Your task to perform on an android device: change the clock display to analog Image 0: 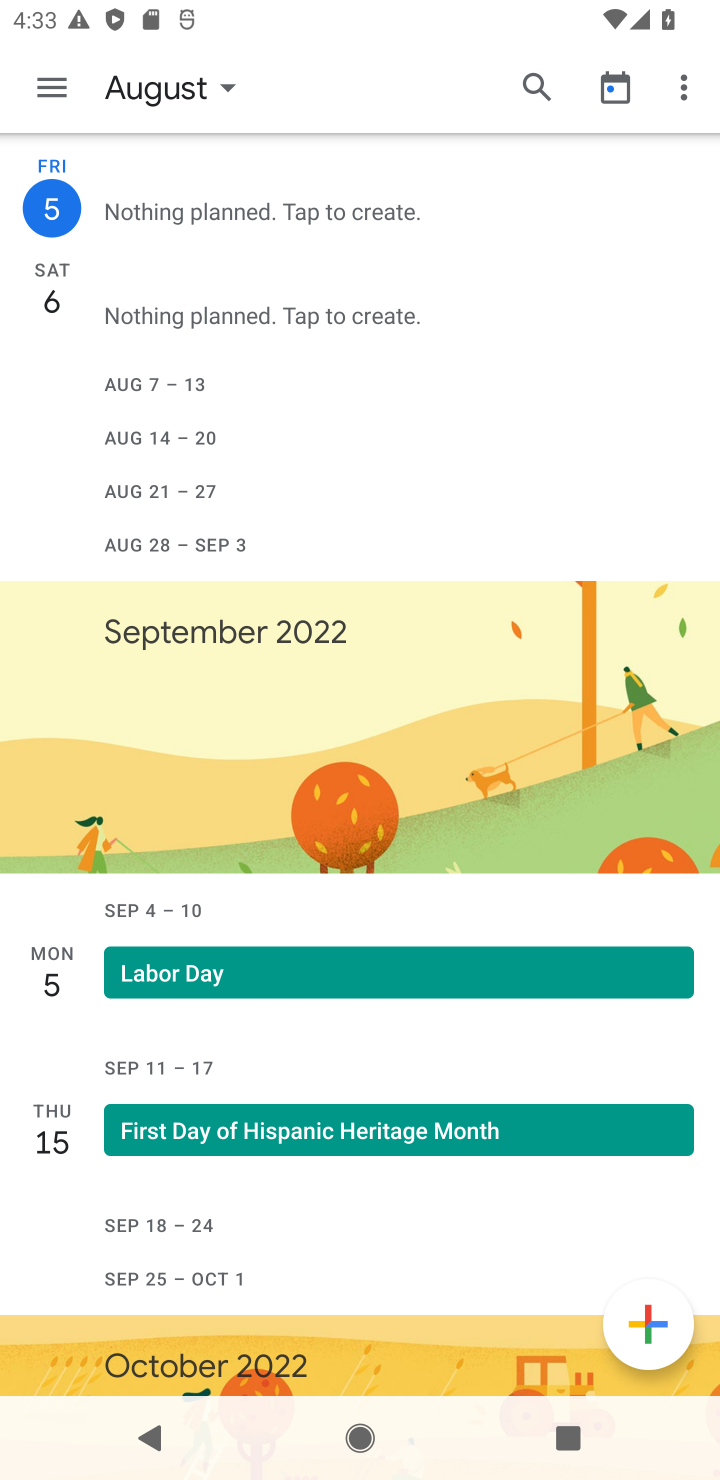
Step 0: press back button
Your task to perform on an android device: change the clock display to analog Image 1: 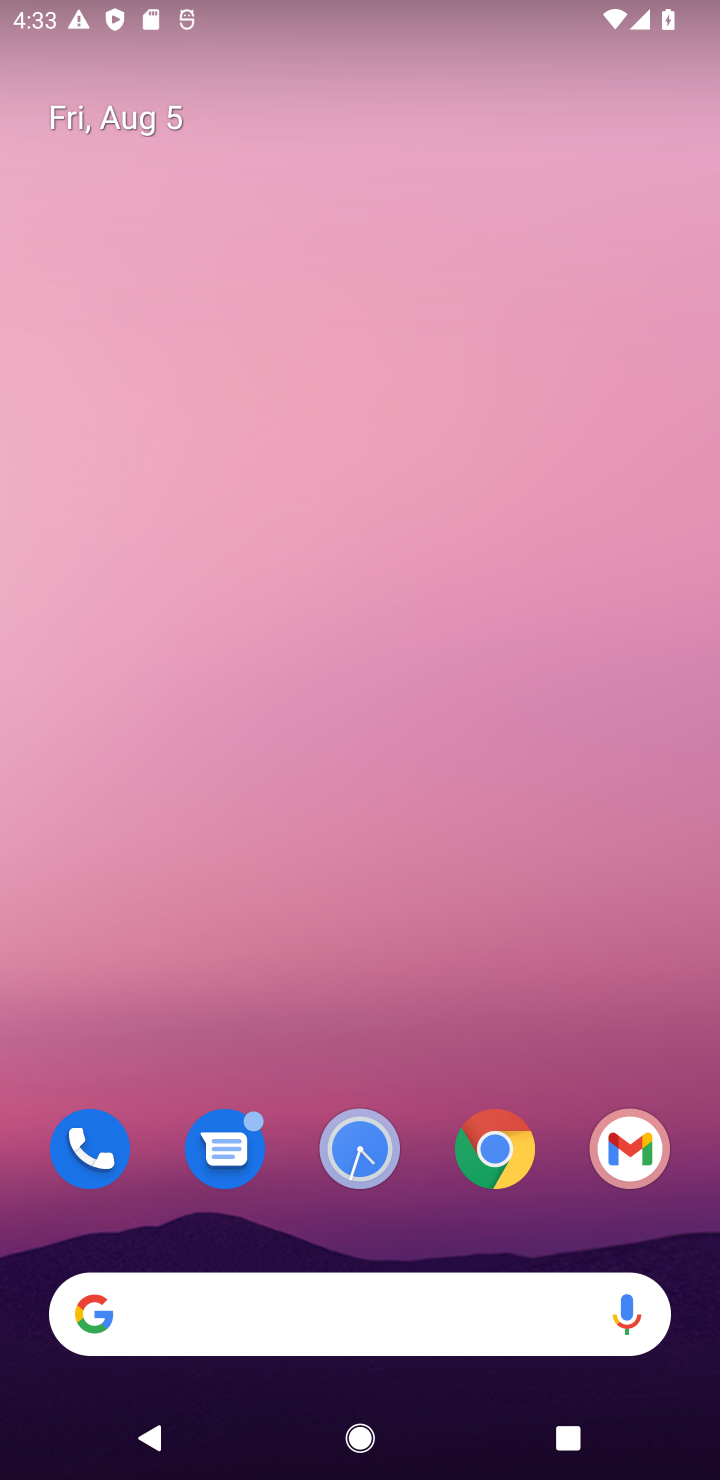
Step 1: click (354, 1173)
Your task to perform on an android device: change the clock display to analog Image 2: 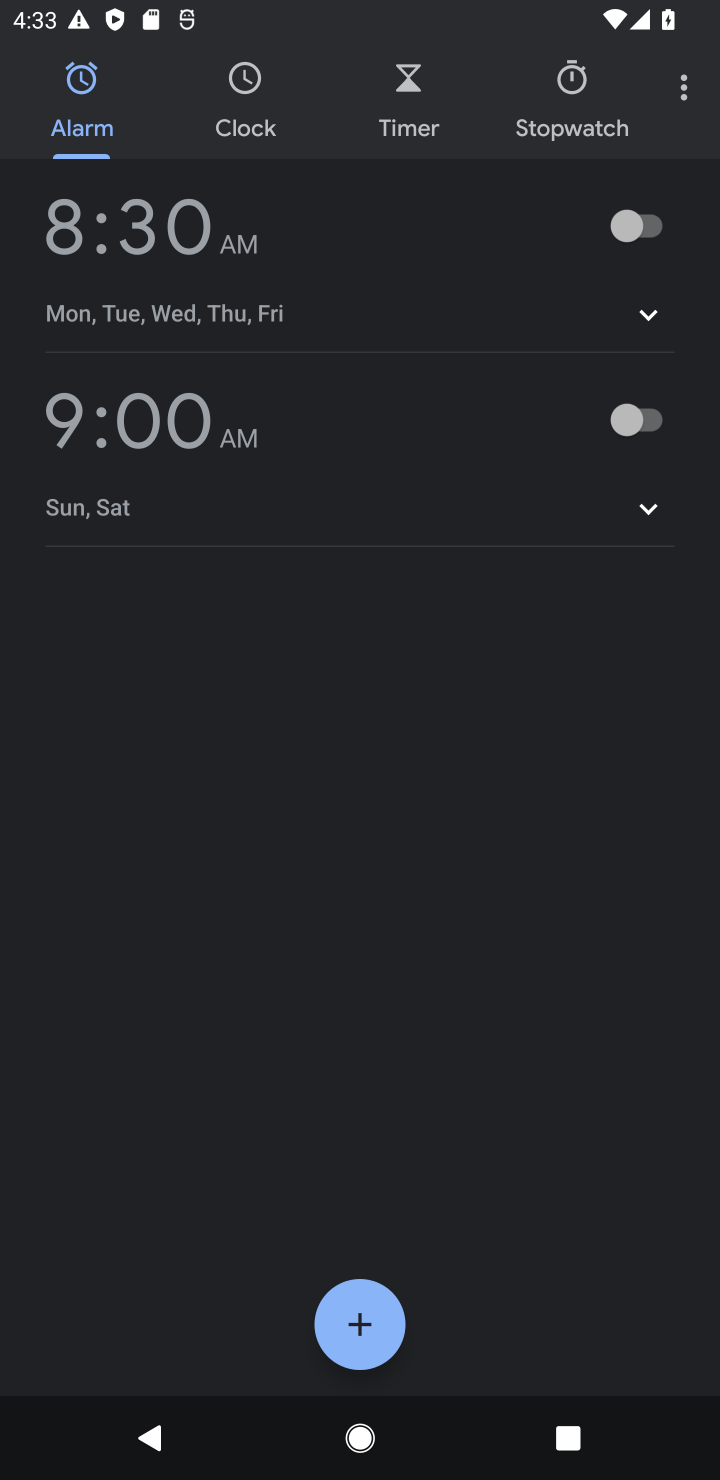
Step 2: click (689, 89)
Your task to perform on an android device: change the clock display to analog Image 3: 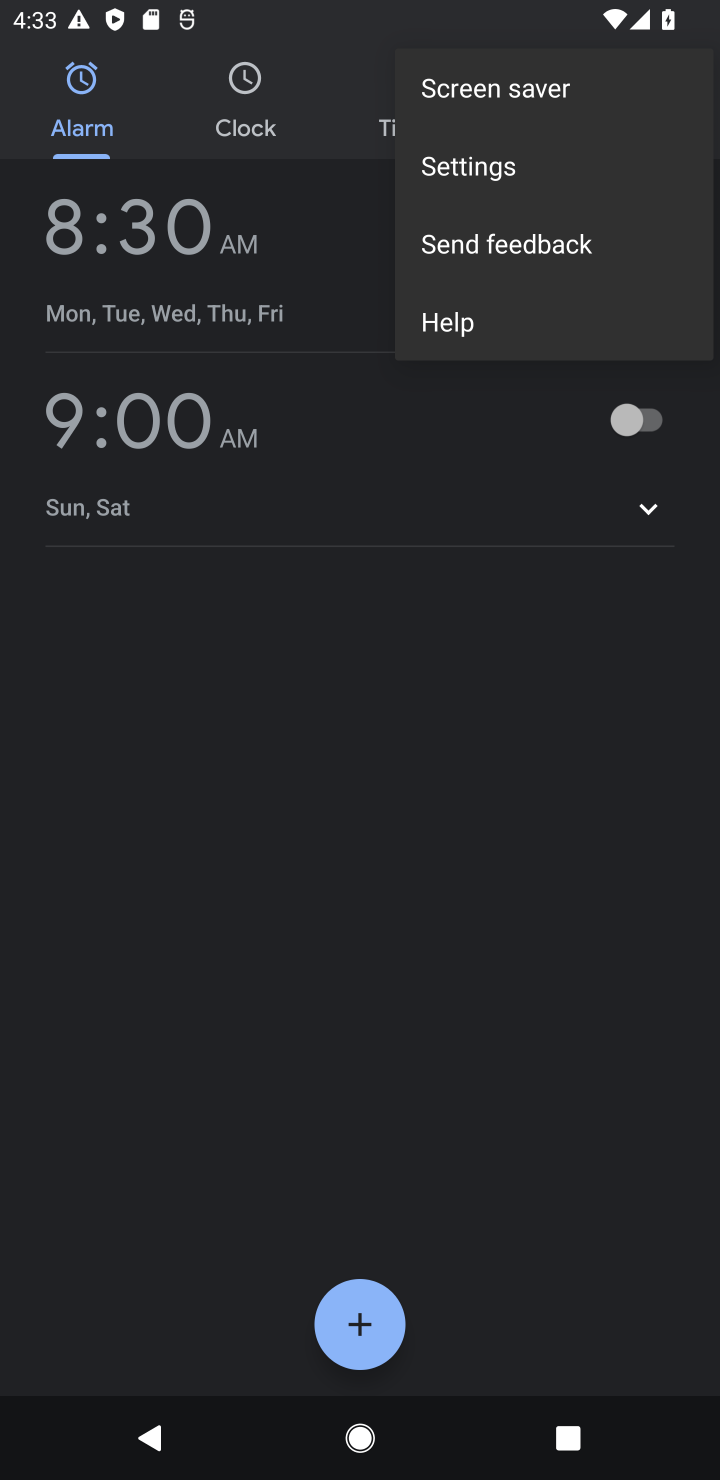
Step 3: click (501, 169)
Your task to perform on an android device: change the clock display to analog Image 4: 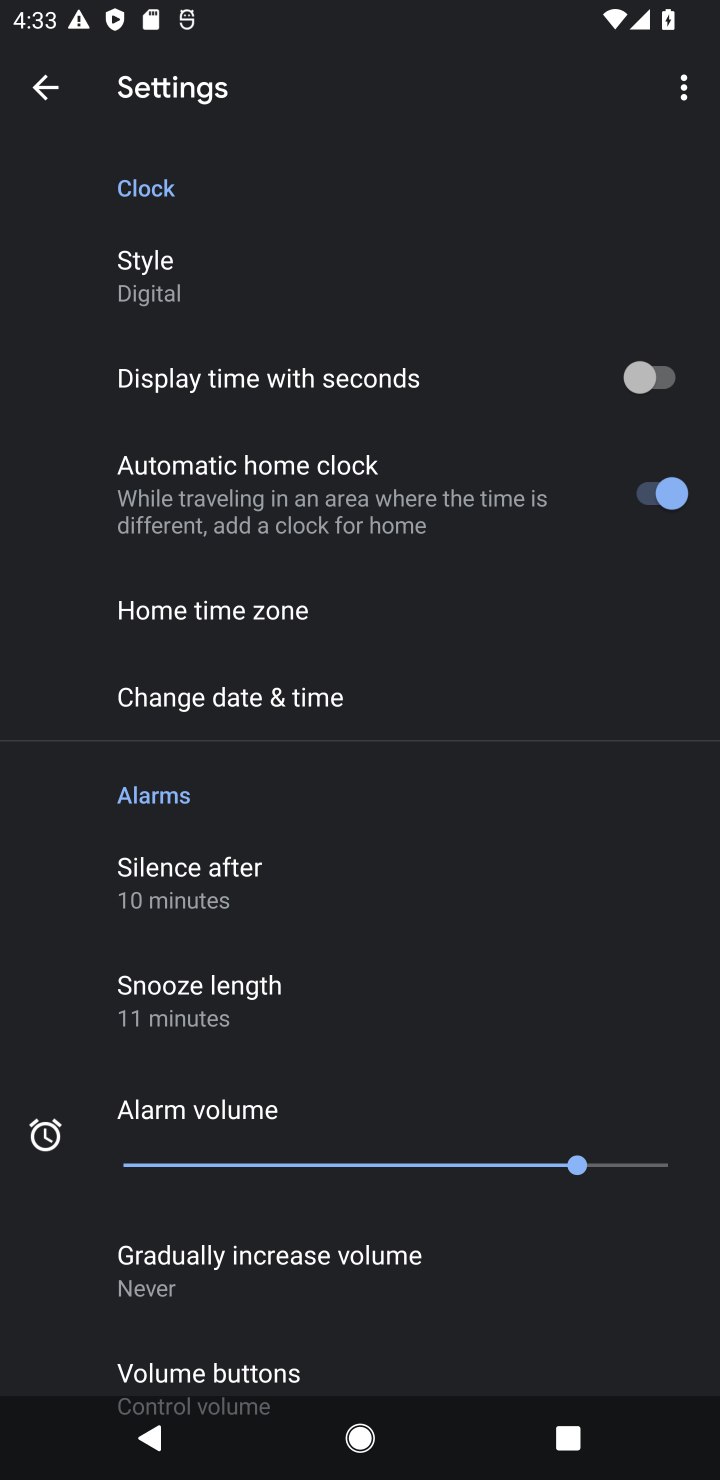
Step 4: click (258, 271)
Your task to perform on an android device: change the clock display to analog Image 5: 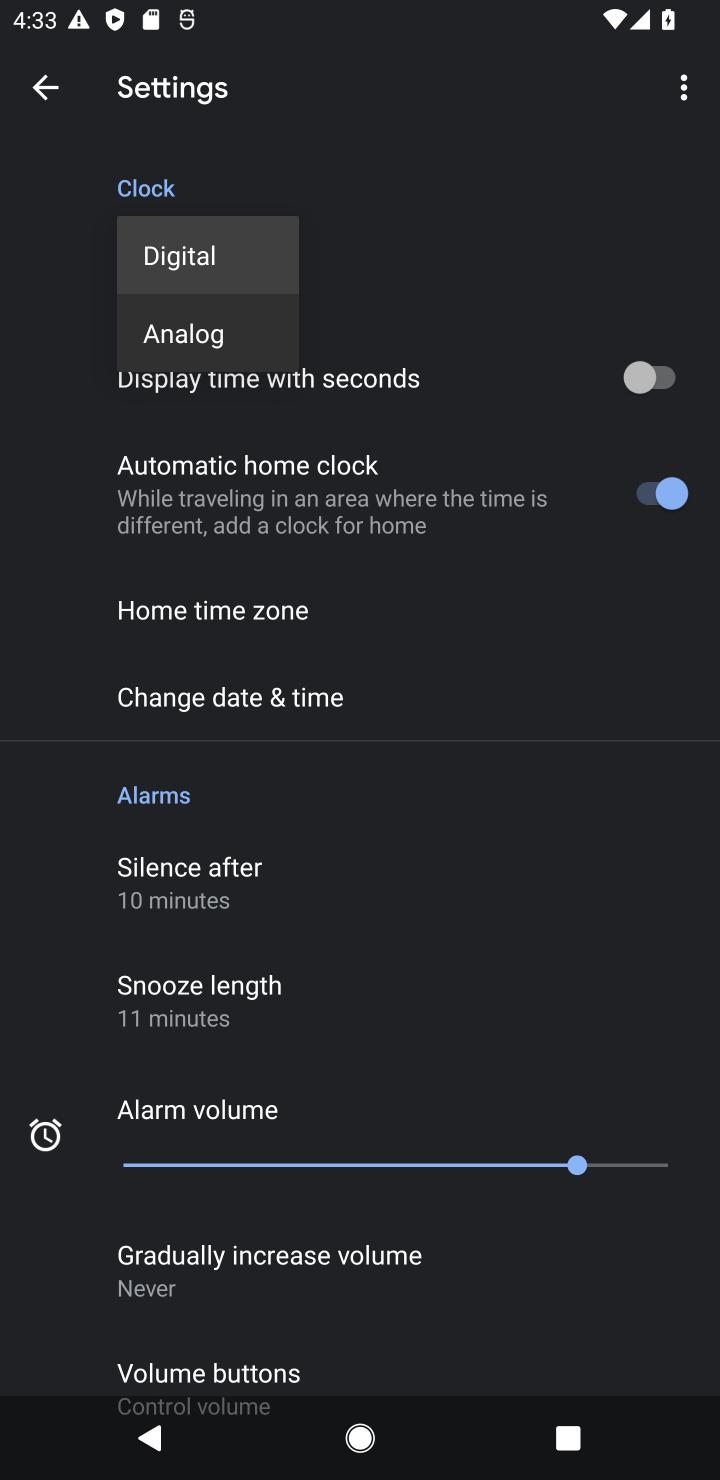
Step 5: click (193, 338)
Your task to perform on an android device: change the clock display to analog Image 6: 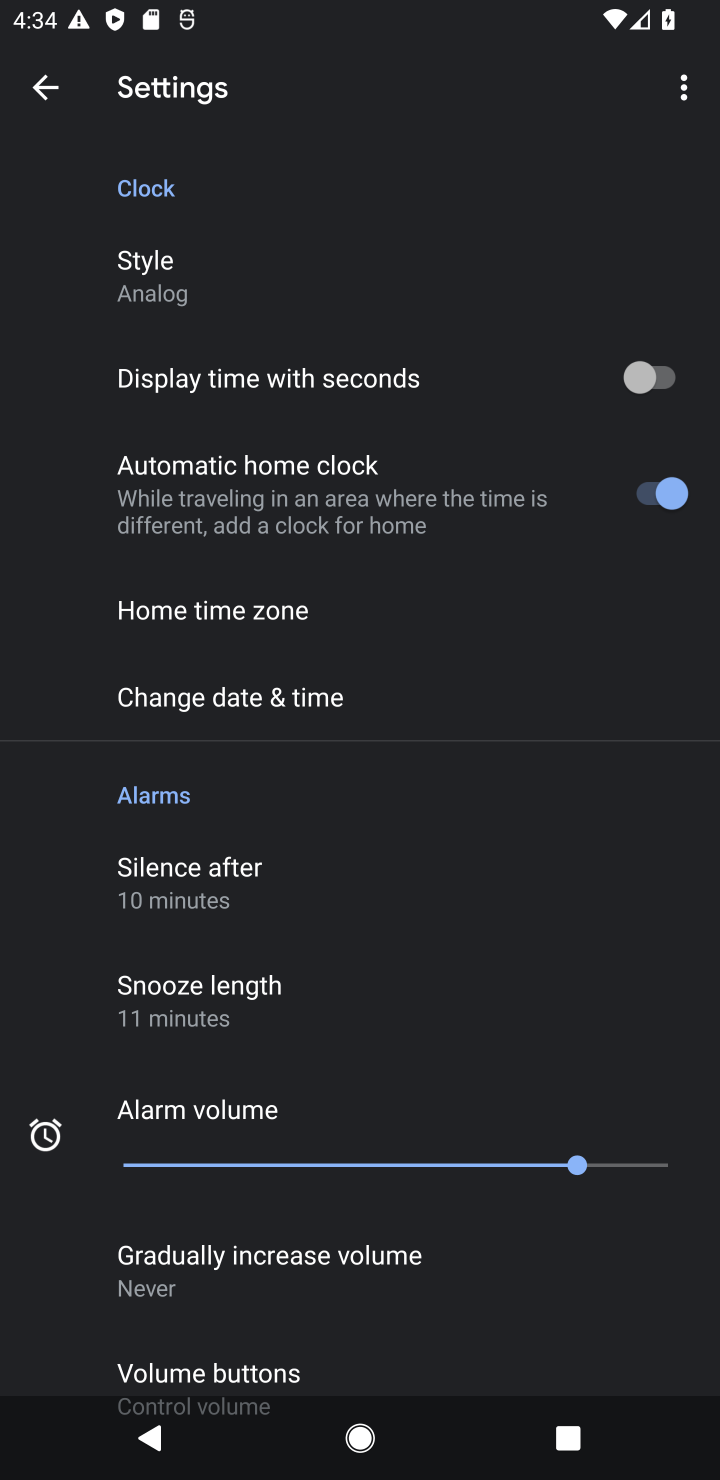
Step 6: click (189, 272)
Your task to perform on an android device: change the clock display to analog Image 7: 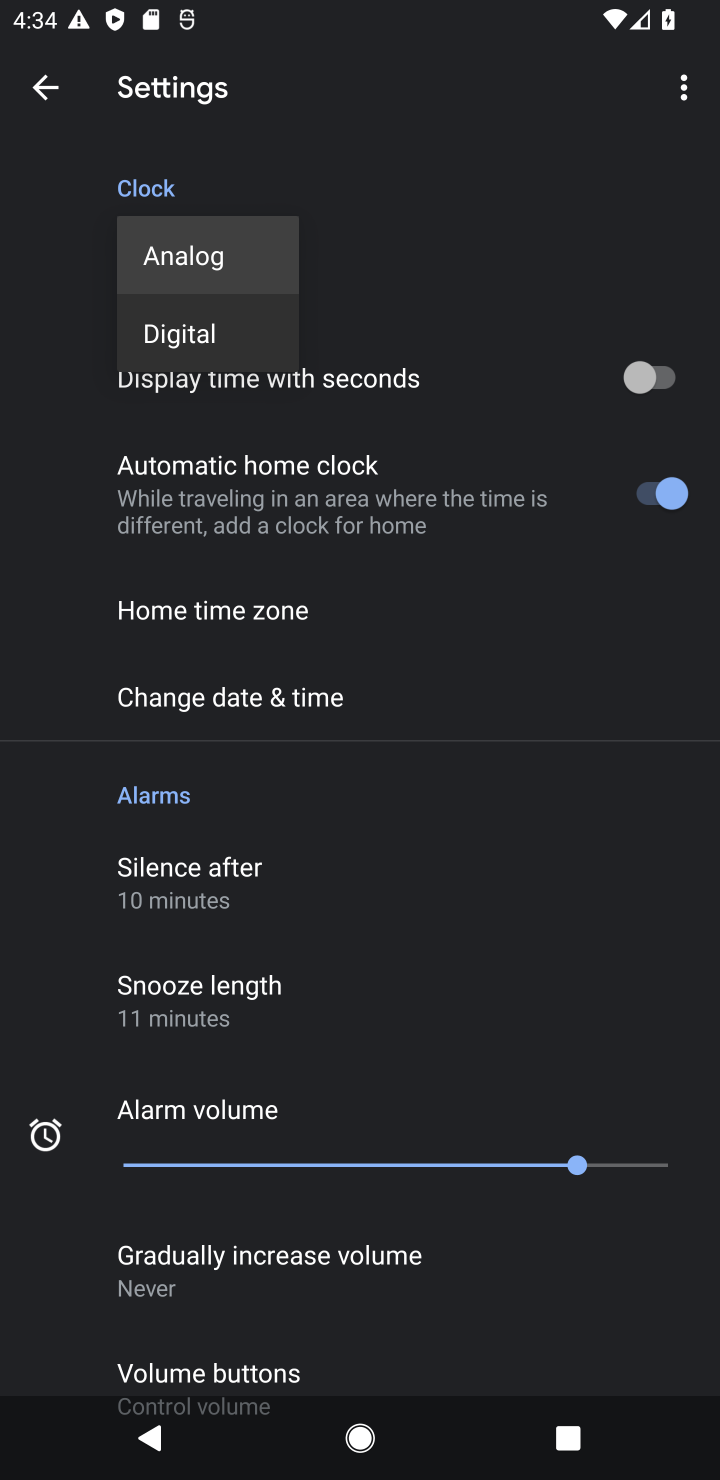
Step 7: click (205, 268)
Your task to perform on an android device: change the clock display to analog Image 8: 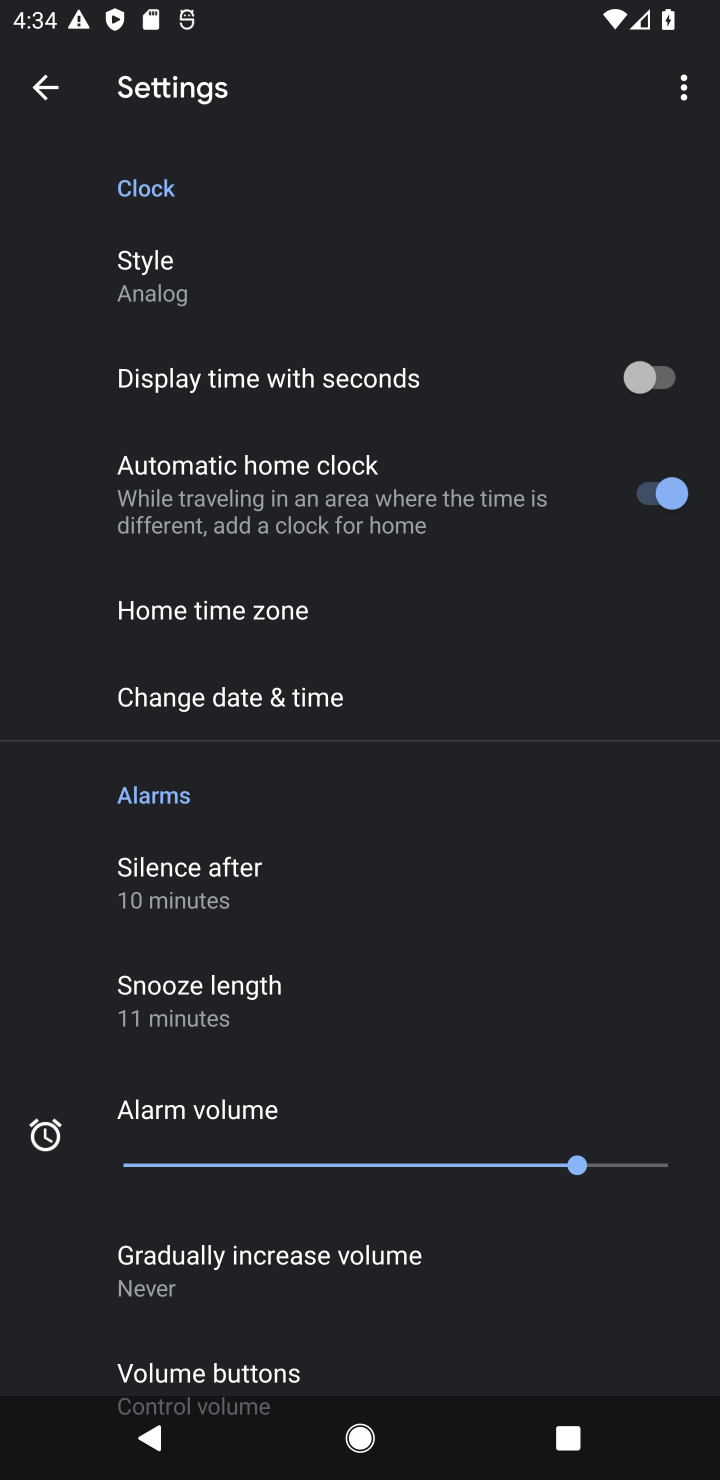
Step 8: task complete